Your task to perform on an android device: Check the settings for the Pandora app Image 0: 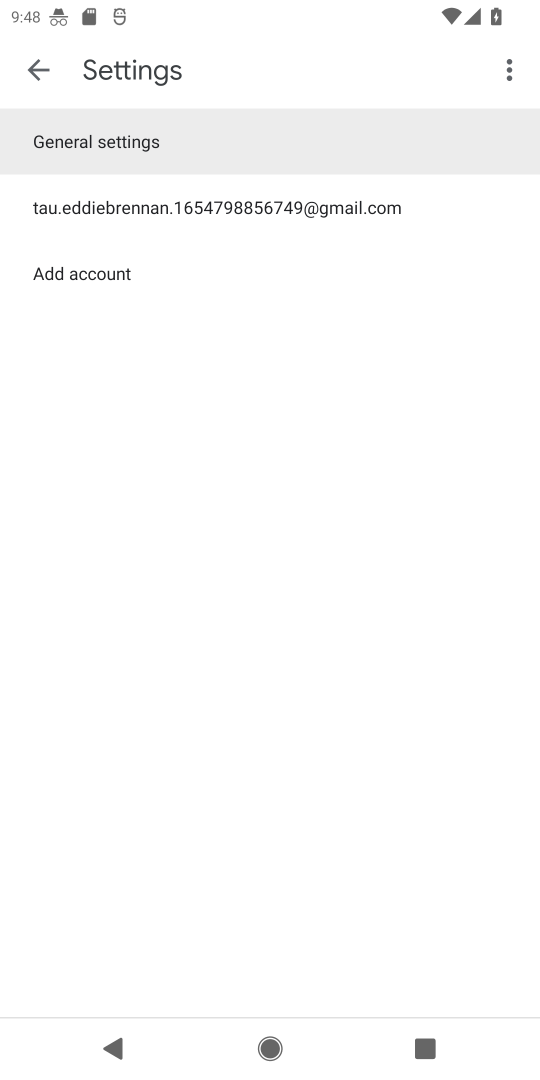
Step 0: press home button
Your task to perform on an android device: Check the settings for the Pandora app Image 1: 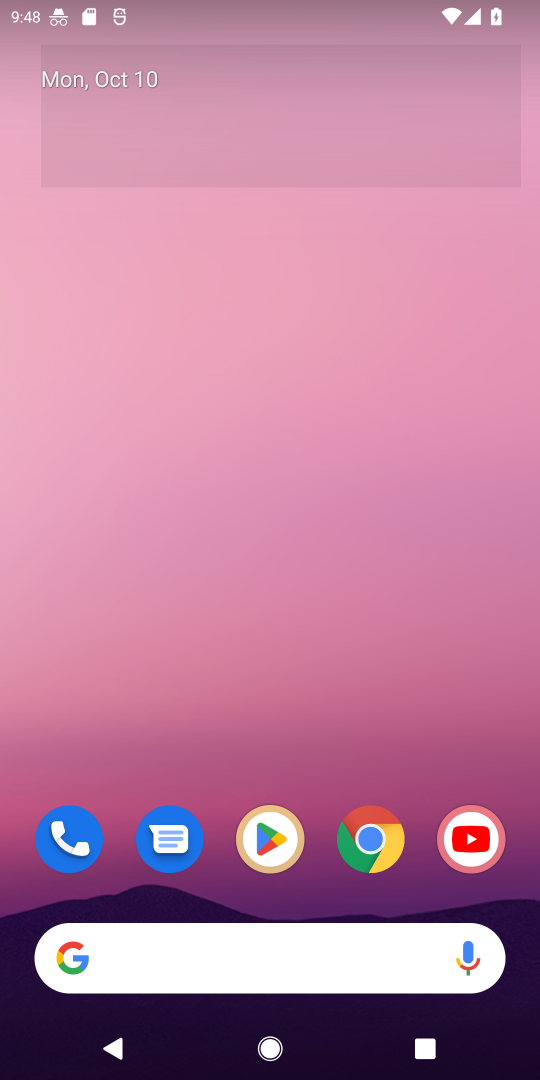
Step 1: task complete